Your task to perform on an android device: toggle pop-ups in chrome Image 0: 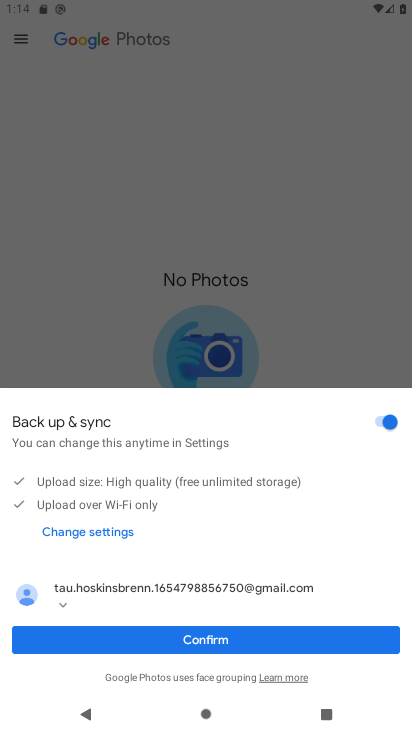
Step 0: press home button
Your task to perform on an android device: toggle pop-ups in chrome Image 1: 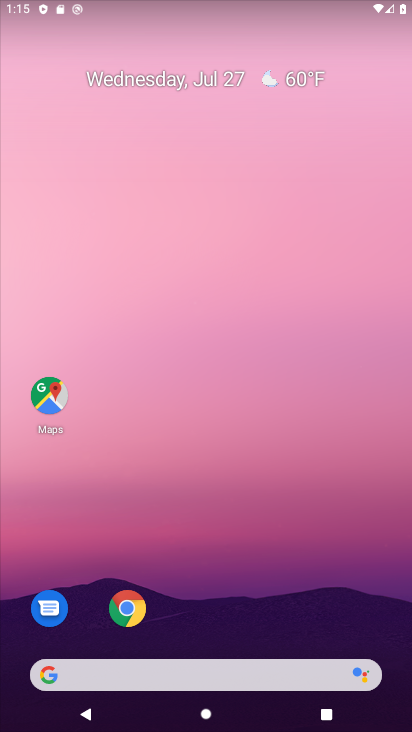
Step 1: click (127, 611)
Your task to perform on an android device: toggle pop-ups in chrome Image 2: 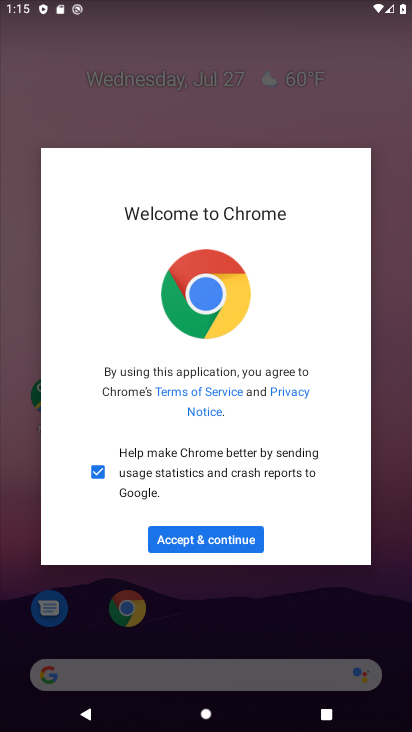
Step 2: click (192, 541)
Your task to perform on an android device: toggle pop-ups in chrome Image 3: 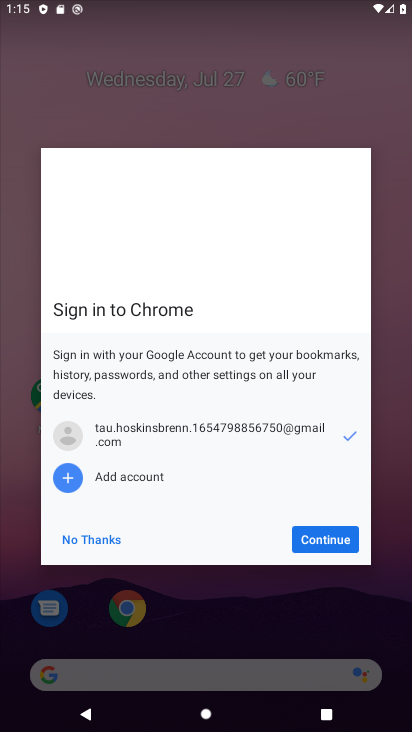
Step 3: click (312, 535)
Your task to perform on an android device: toggle pop-ups in chrome Image 4: 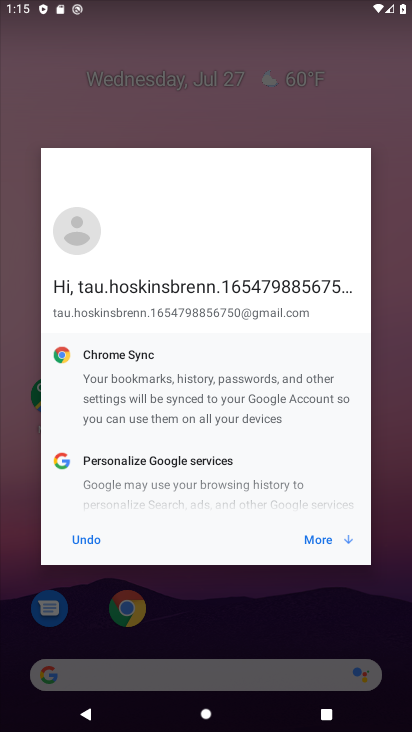
Step 4: click (312, 535)
Your task to perform on an android device: toggle pop-ups in chrome Image 5: 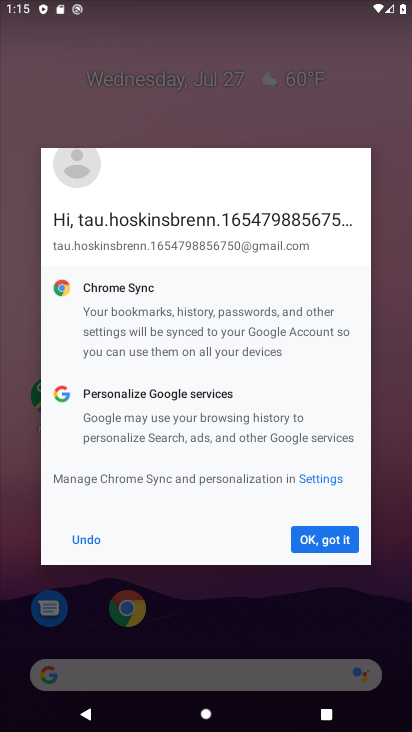
Step 5: click (312, 535)
Your task to perform on an android device: toggle pop-ups in chrome Image 6: 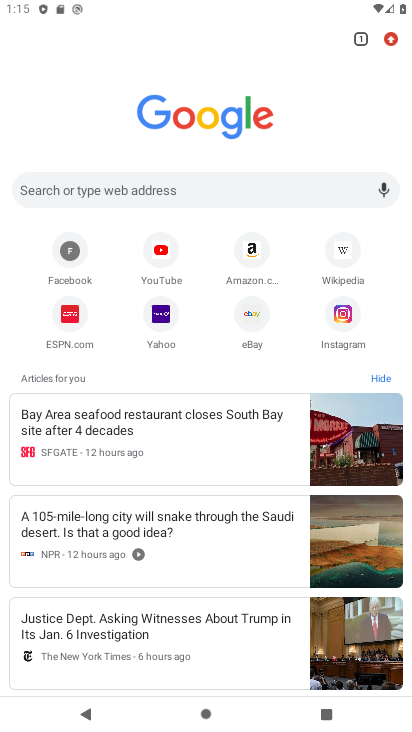
Step 6: click (386, 41)
Your task to perform on an android device: toggle pop-ups in chrome Image 7: 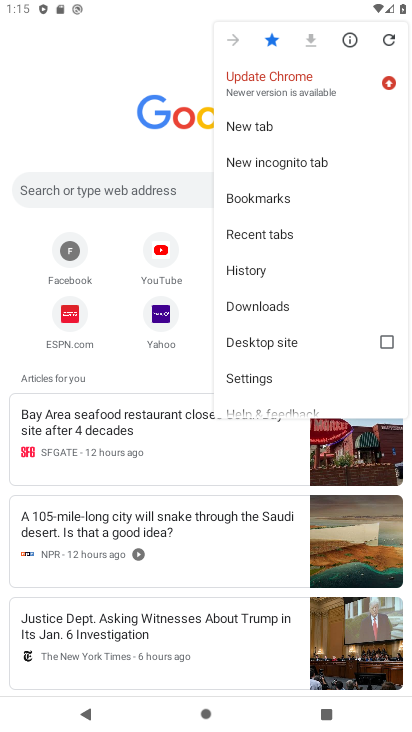
Step 7: click (257, 372)
Your task to perform on an android device: toggle pop-ups in chrome Image 8: 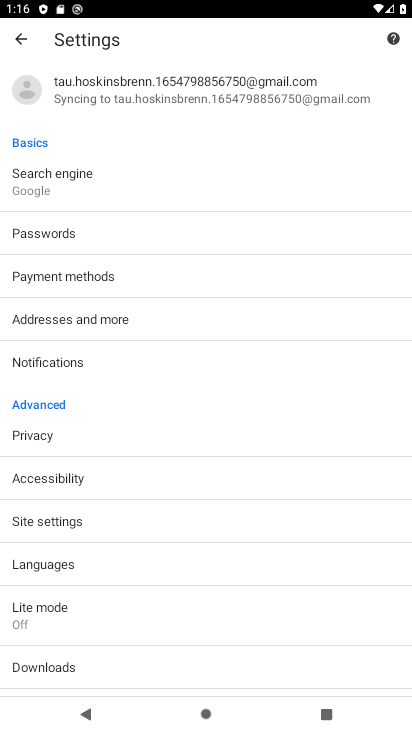
Step 8: click (82, 523)
Your task to perform on an android device: toggle pop-ups in chrome Image 9: 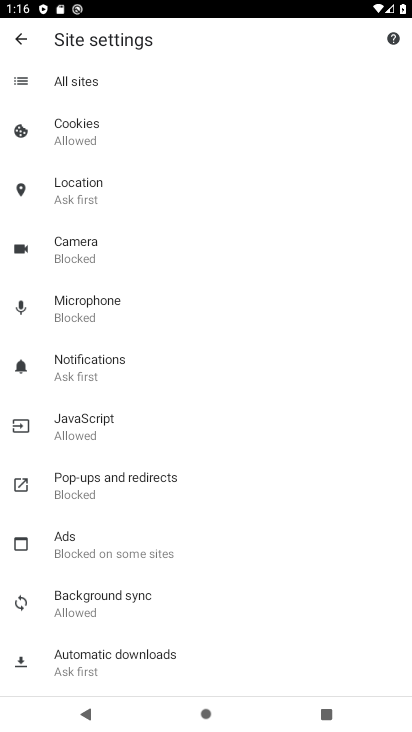
Step 9: click (90, 477)
Your task to perform on an android device: toggle pop-ups in chrome Image 10: 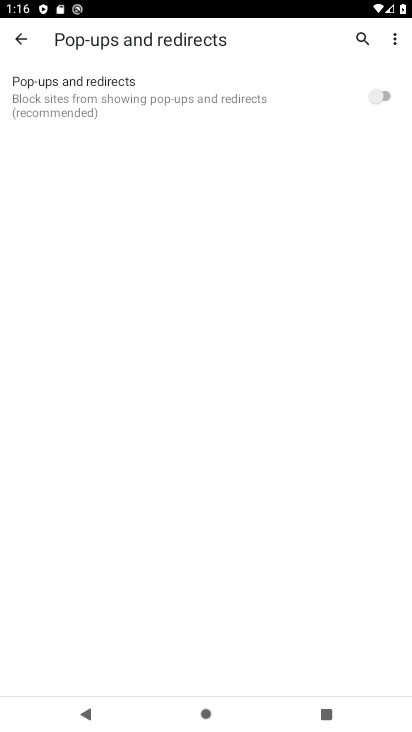
Step 10: click (375, 88)
Your task to perform on an android device: toggle pop-ups in chrome Image 11: 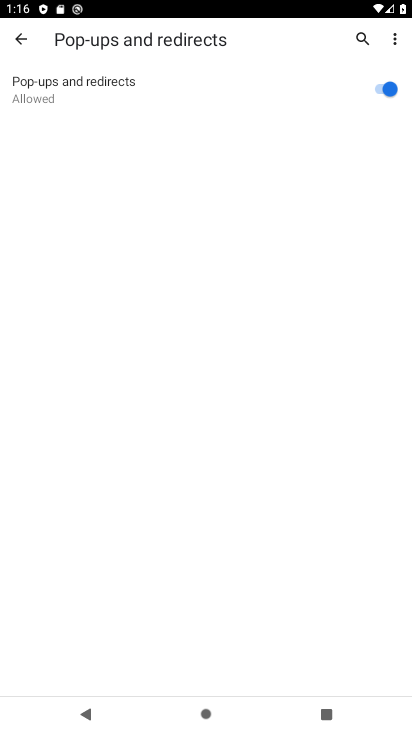
Step 11: task complete